Your task to perform on an android device: turn notification dots off Image 0: 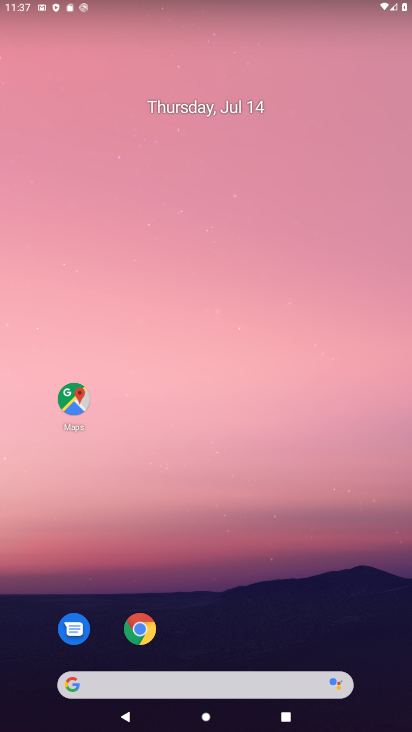
Step 0: drag from (206, 653) to (362, 136)
Your task to perform on an android device: turn notification dots off Image 1: 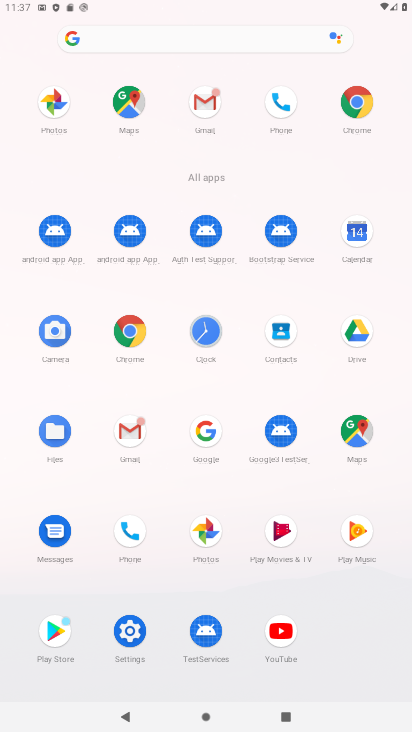
Step 1: click (122, 644)
Your task to perform on an android device: turn notification dots off Image 2: 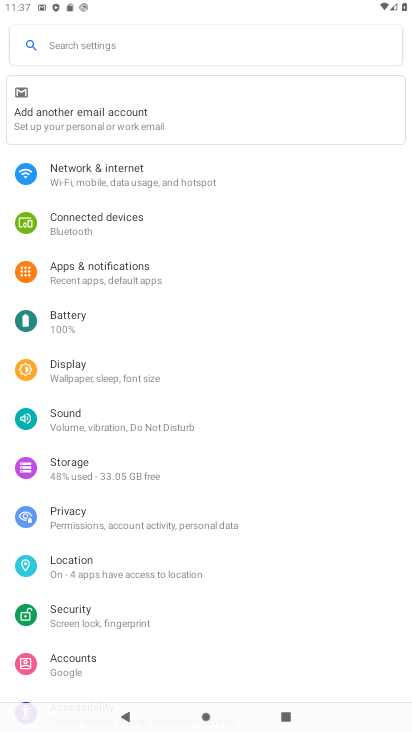
Step 2: click (157, 276)
Your task to perform on an android device: turn notification dots off Image 3: 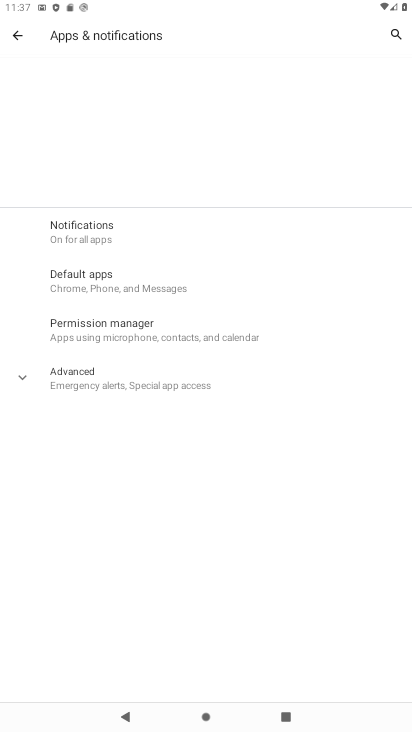
Step 3: click (157, 249)
Your task to perform on an android device: turn notification dots off Image 4: 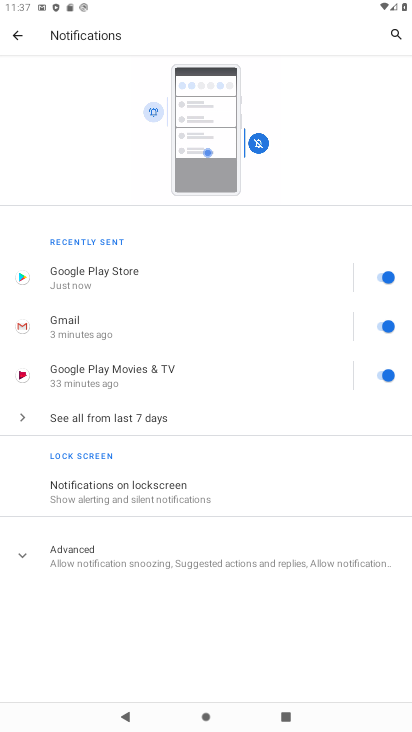
Step 4: click (225, 558)
Your task to perform on an android device: turn notification dots off Image 5: 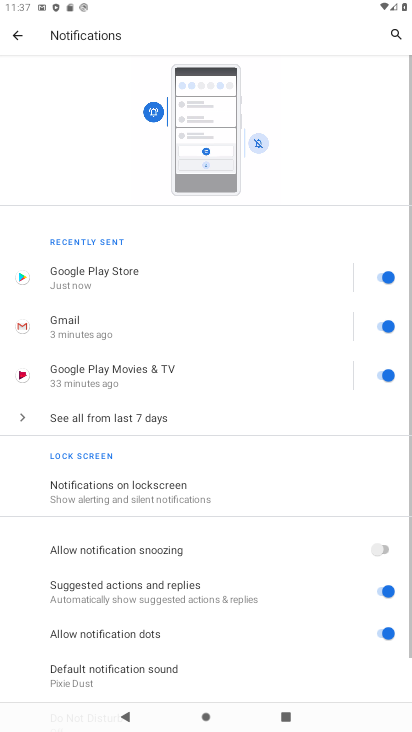
Step 5: drag from (180, 630) to (243, 382)
Your task to perform on an android device: turn notification dots off Image 6: 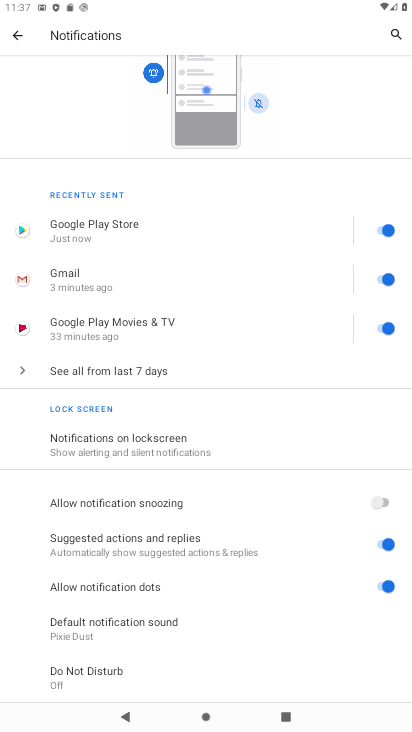
Step 6: click (373, 581)
Your task to perform on an android device: turn notification dots off Image 7: 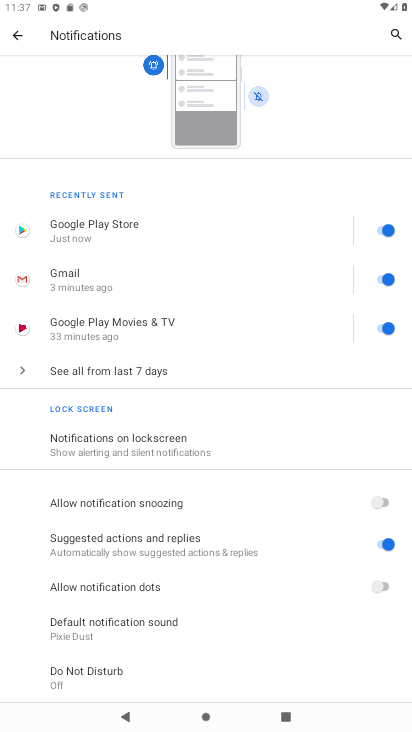
Step 7: task complete